Your task to perform on an android device: Go to eBay Image 0: 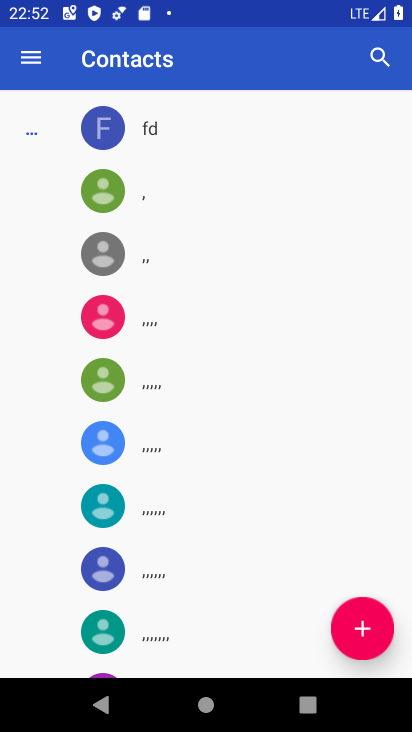
Step 0: drag from (239, 591) to (317, 182)
Your task to perform on an android device: Go to eBay Image 1: 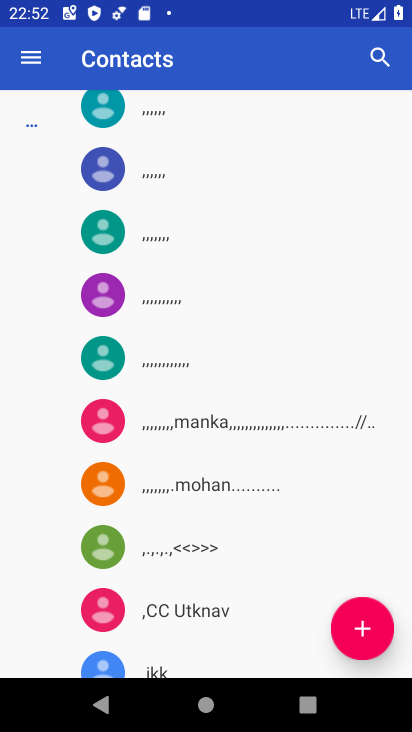
Step 1: press home button
Your task to perform on an android device: Go to eBay Image 2: 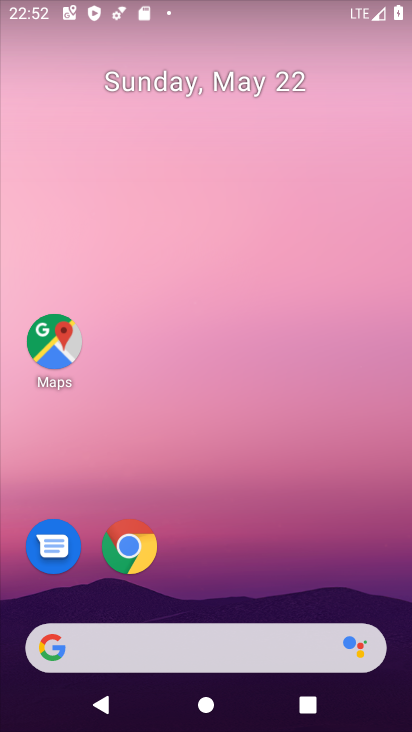
Step 2: click (205, 632)
Your task to perform on an android device: Go to eBay Image 3: 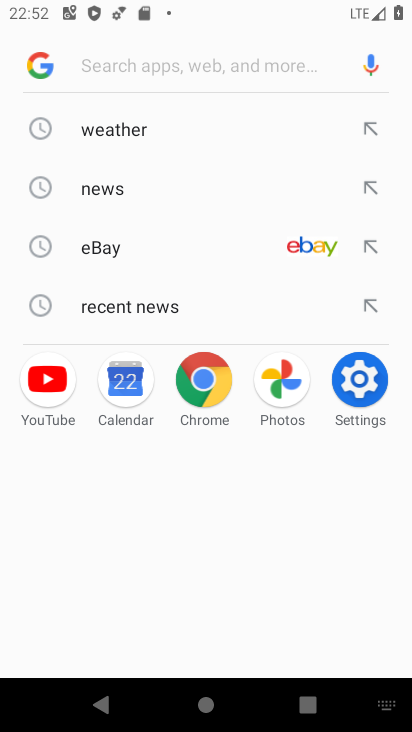
Step 3: click (132, 59)
Your task to perform on an android device: Go to eBay Image 4: 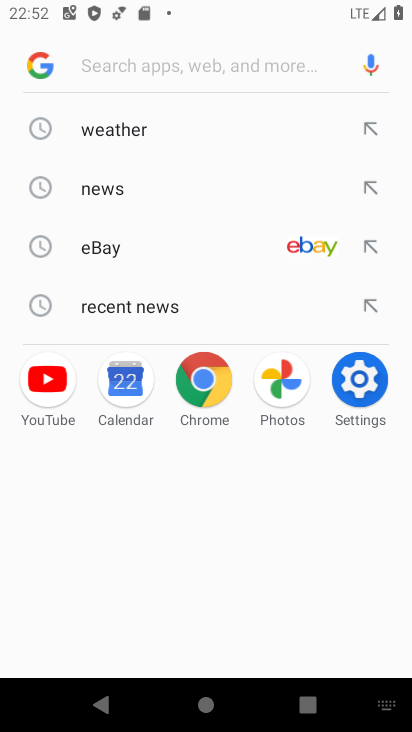
Step 4: click (119, 245)
Your task to perform on an android device: Go to eBay Image 5: 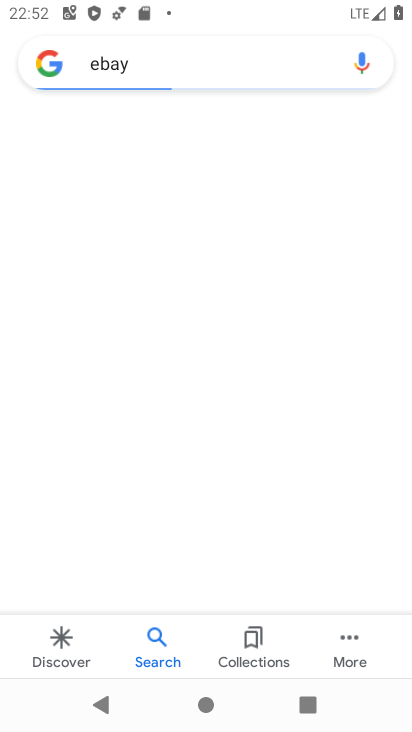
Step 5: drag from (248, 532) to (251, 3)
Your task to perform on an android device: Go to eBay Image 6: 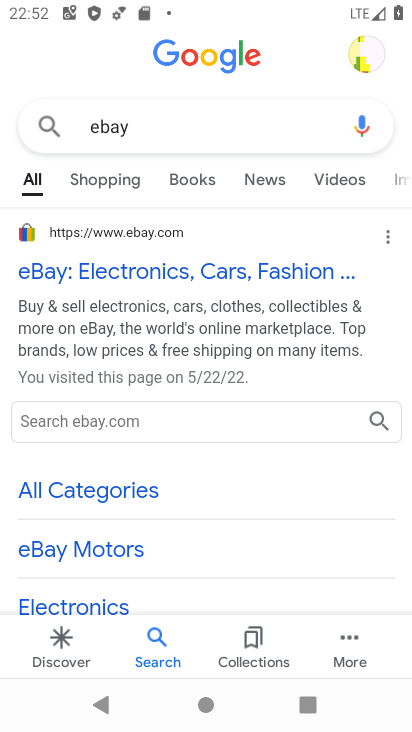
Step 6: drag from (222, 546) to (292, 122)
Your task to perform on an android device: Go to eBay Image 7: 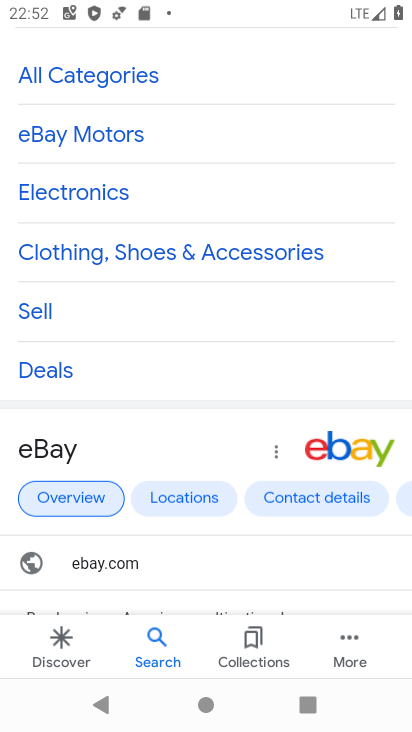
Step 7: drag from (234, 459) to (332, 1)
Your task to perform on an android device: Go to eBay Image 8: 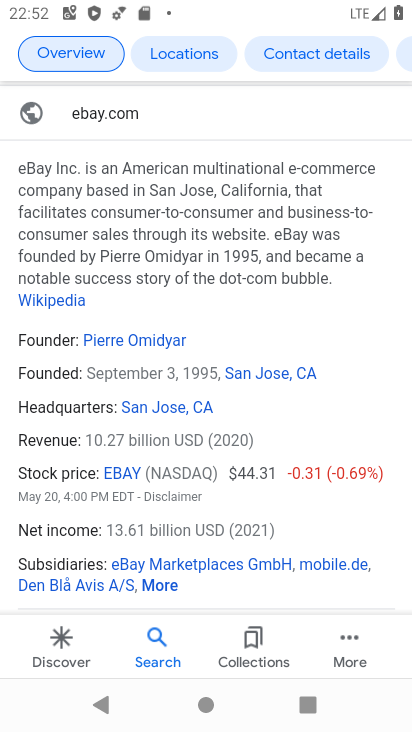
Step 8: drag from (289, 596) to (386, 122)
Your task to perform on an android device: Go to eBay Image 9: 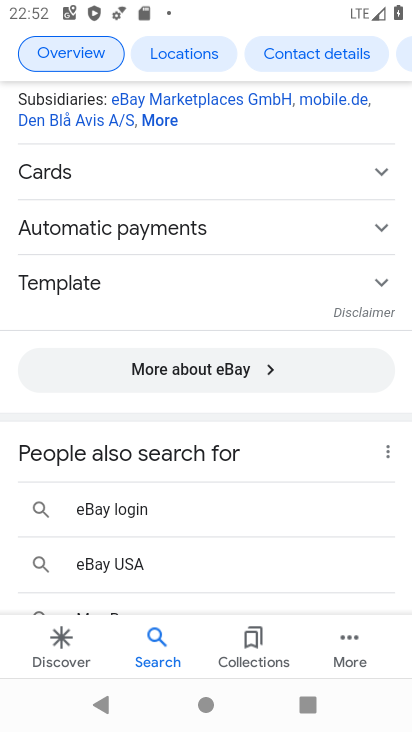
Step 9: drag from (334, 201) to (307, 270)
Your task to perform on an android device: Go to eBay Image 10: 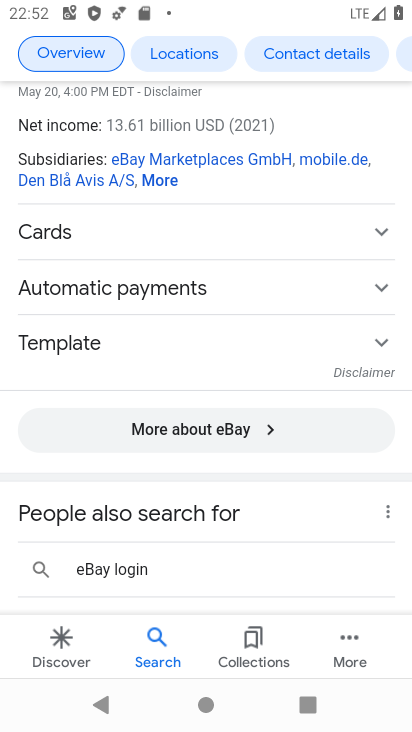
Step 10: drag from (280, 272) to (308, 723)
Your task to perform on an android device: Go to eBay Image 11: 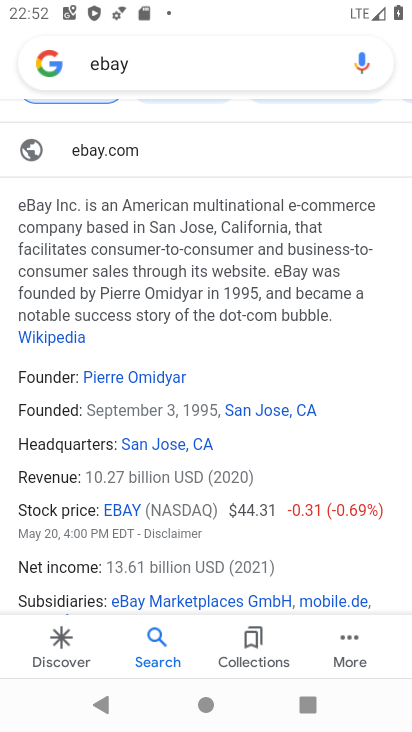
Step 11: drag from (205, 253) to (280, 725)
Your task to perform on an android device: Go to eBay Image 12: 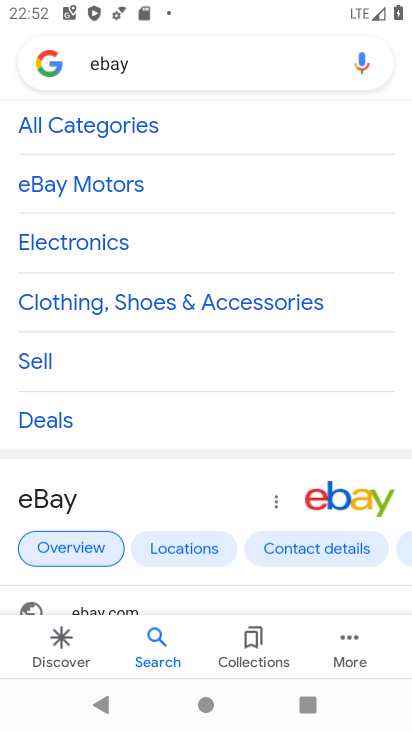
Step 12: drag from (242, 233) to (312, 689)
Your task to perform on an android device: Go to eBay Image 13: 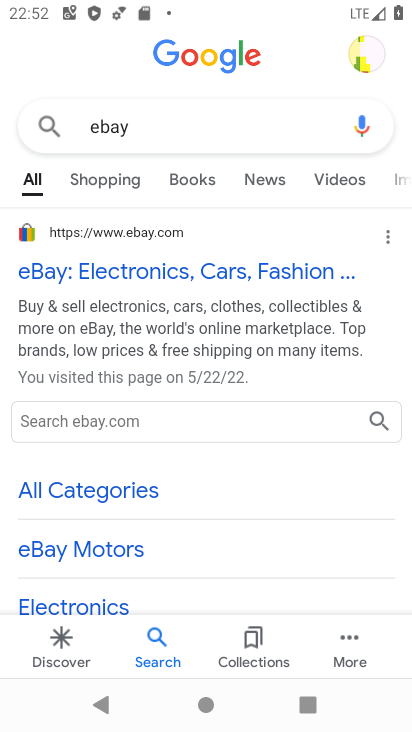
Step 13: click (118, 269)
Your task to perform on an android device: Go to eBay Image 14: 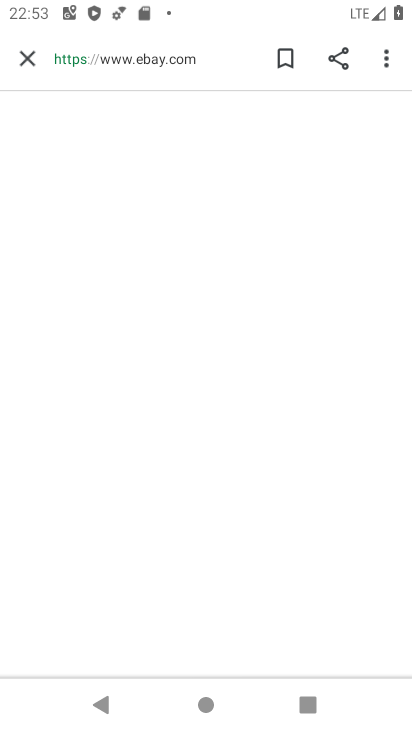
Step 14: task complete